Your task to perform on an android device: toggle translation in the chrome app Image 0: 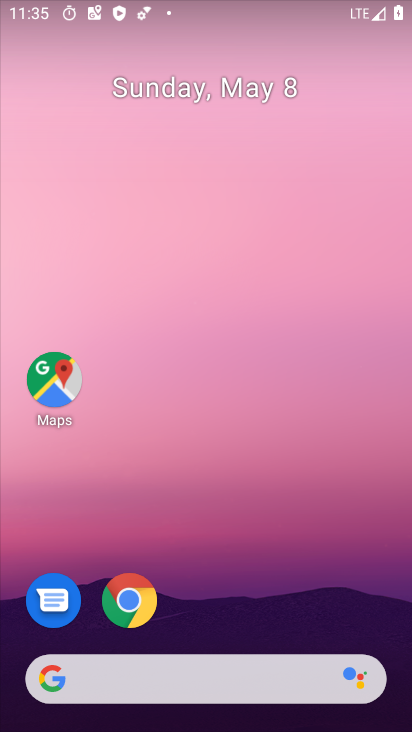
Step 0: click (135, 605)
Your task to perform on an android device: toggle translation in the chrome app Image 1: 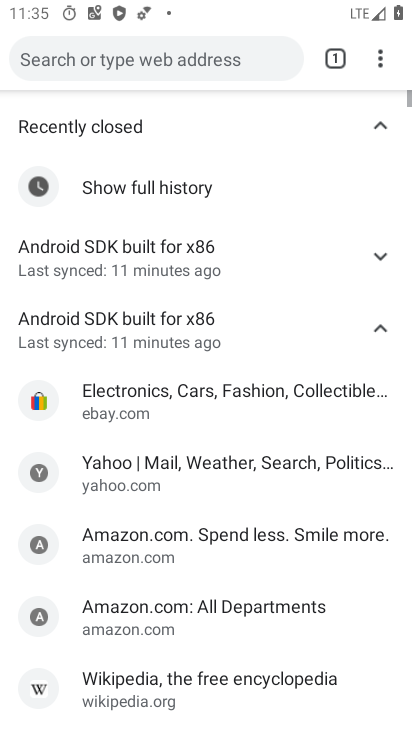
Step 1: click (339, 70)
Your task to perform on an android device: toggle translation in the chrome app Image 2: 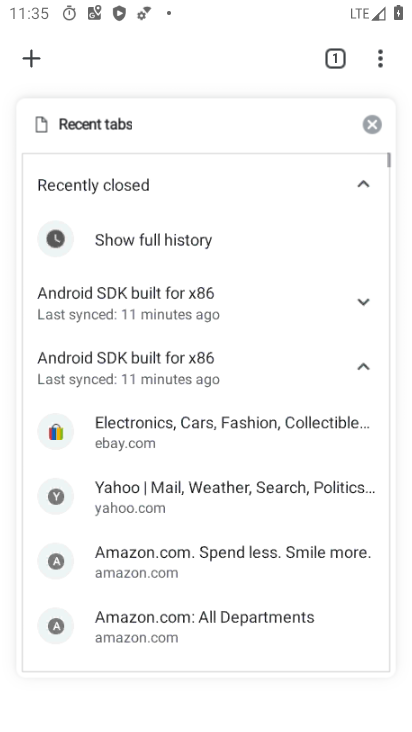
Step 2: click (35, 58)
Your task to perform on an android device: toggle translation in the chrome app Image 3: 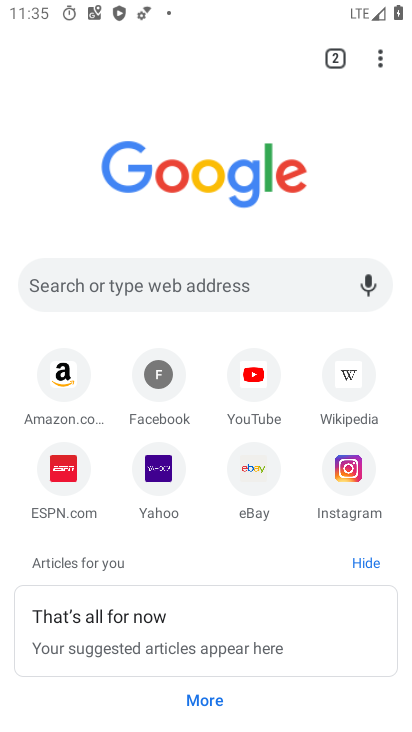
Step 3: click (384, 62)
Your task to perform on an android device: toggle translation in the chrome app Image 4: 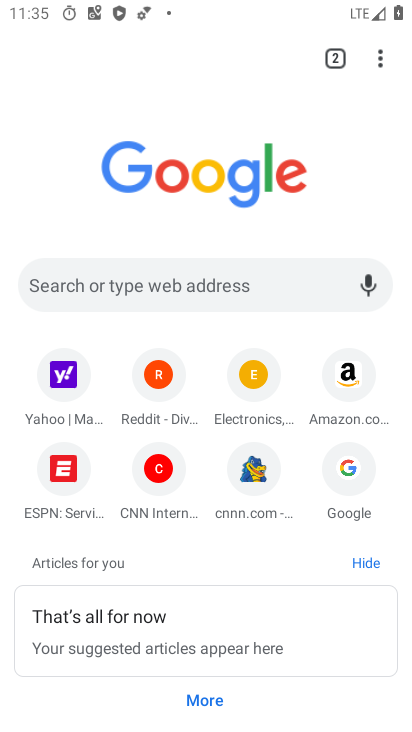
Step 4: click (383, 62)
Your task to perform on an android device: toggle translation in the chrome app Image 5: 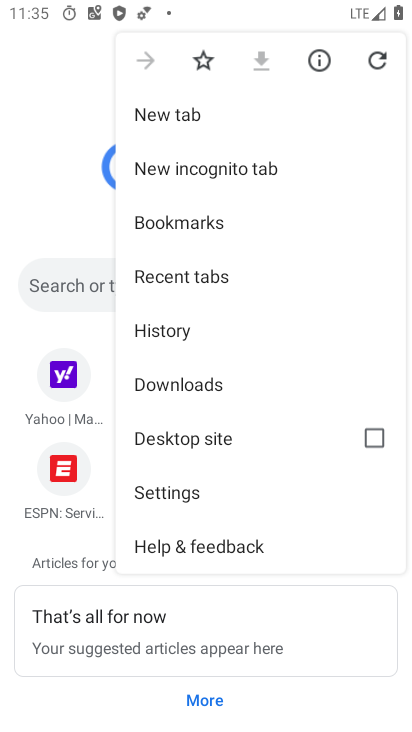
Step 5: click (215, 470)
Your task to perform on an android device: toggle translation in the chrome app Image 6: 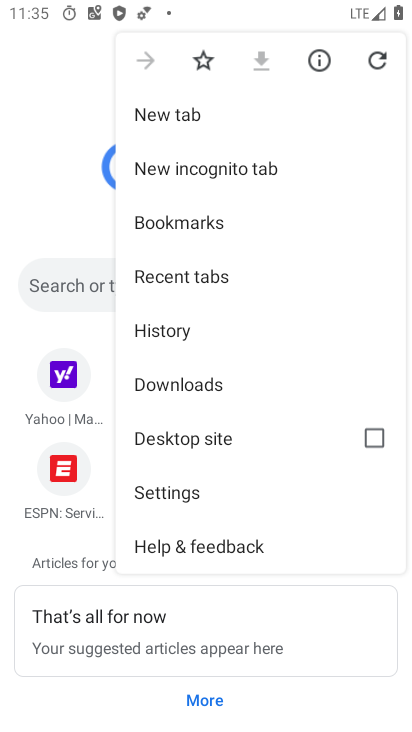
Step 6: click (222, 485)
Your task to perform on an android device: toggle translation in the chrome app Image 7: 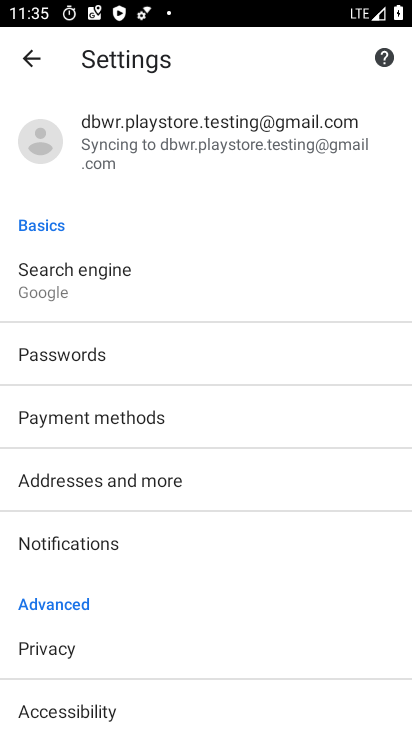
Step 7: drag from (207, 612) to (230, 321)
Your task to perform on an android device: toggle translation in the chrome app Image 8: 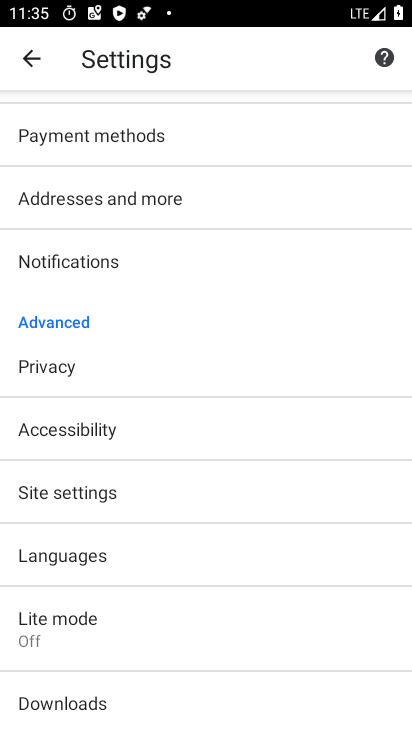
Step 8: drag from (100, 597) to (142, 306)
Your task to perform on an android device: toggle translation in the chrome app Image 9: 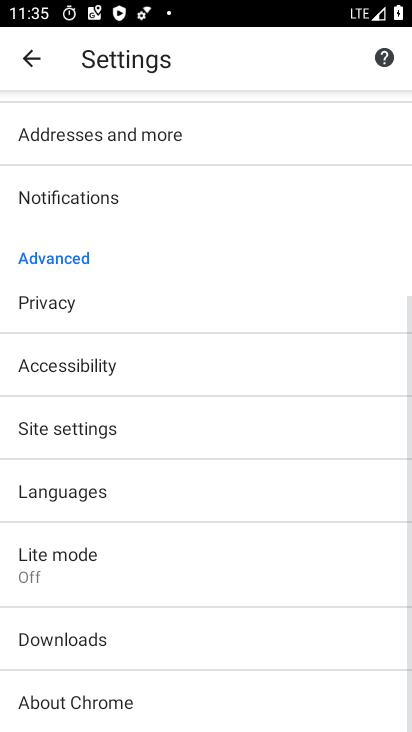
Step 9: click (120, 493)
Your task to perform on an android device: toggle translation in the chrome app Image 10: 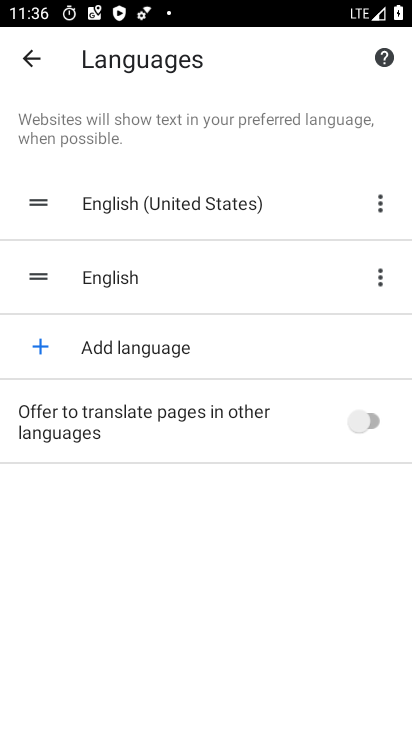
Step 10: click (355, 426)
Your task to perform on an android device: toggle translation in the chrome app Image 11: 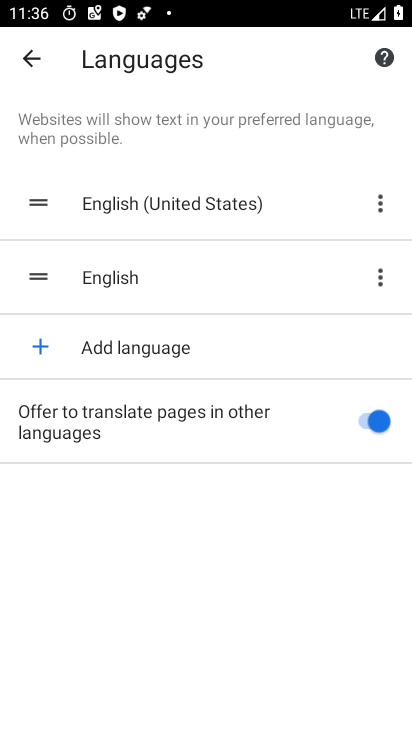
Step 11: task complete